Your task to perform on an android device: Open Google Maps and go to "Timeline" Image 0: 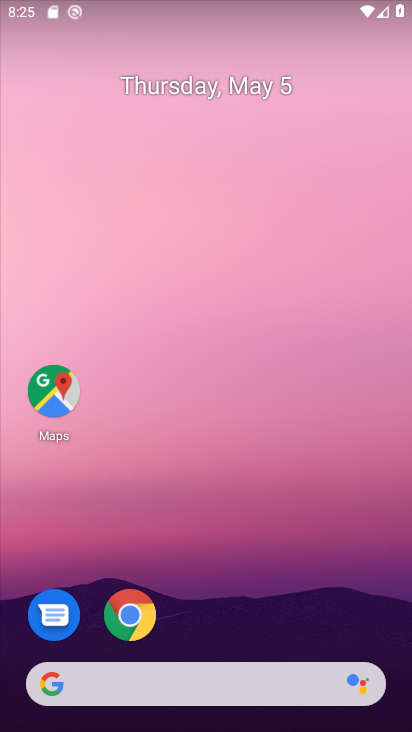
Step 0: click (47, 394)
Your task to perform on an android device: Open Google Maps and go to "Timeline" Image 1: 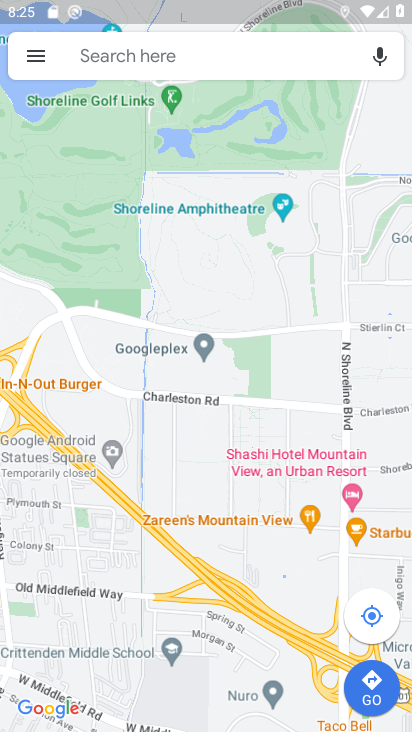
Step 1: click (38, 59)
Your task to perform on an android device: Open Google Maps and go to "Timeline" Image 2: 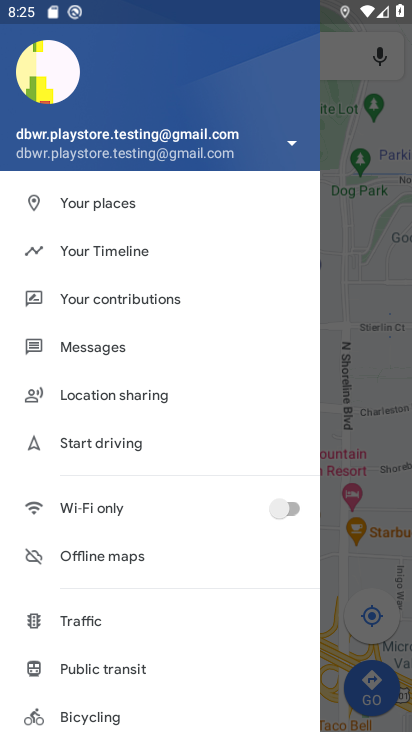
Step 2: click (120, 258)
Your task to perform on an android device: Open Google Maps and go to "Timeline" Image 3: 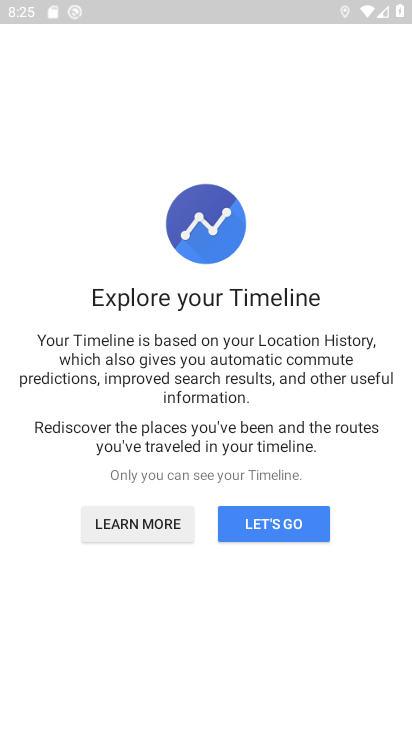
Step 3: click (303, 521)
Your task to perform on an android device: Open Google Maps and go to "Timeline" Image 4: 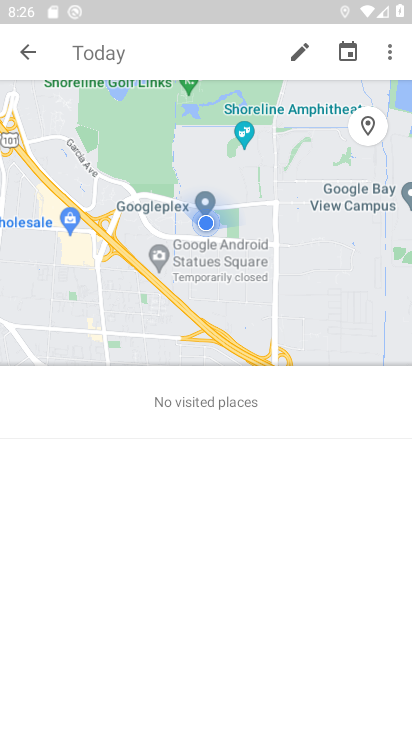
Step 4: task complete